Your task to perform on an android device: Open settings Image 0: 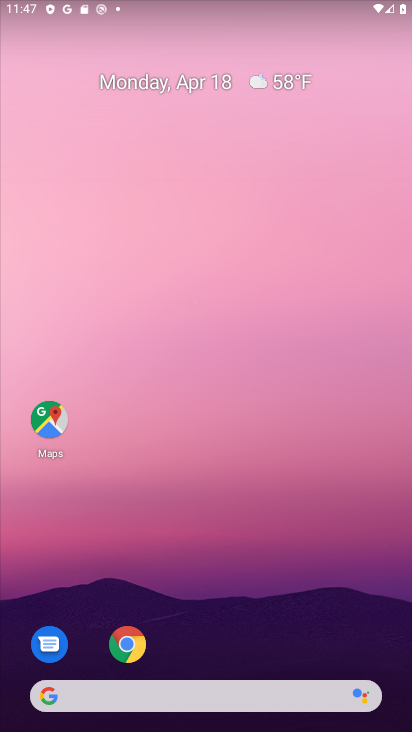
Step 0: drag from (232, 584) to (297, 179)
Your task to perform on an android device: Open settings Image 1: 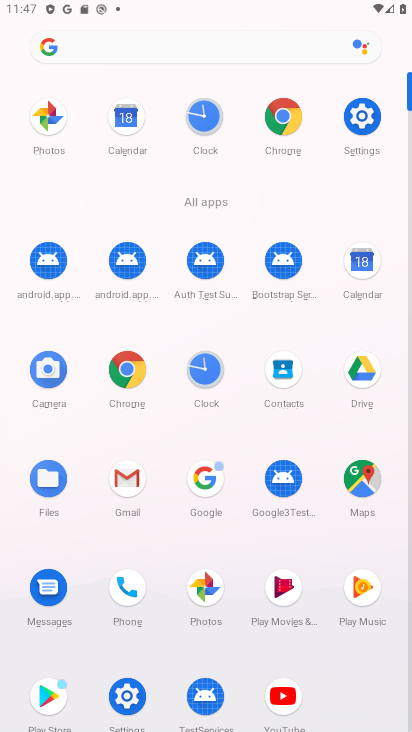
Step 1: click (357, 117)
Your task to perform on an android device: Open settings Image 2: 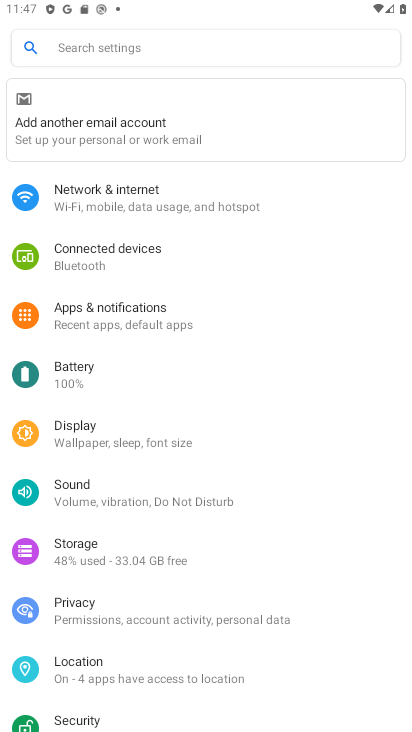
Step 2: task complete